Your task to perform on an android device: Open calendar and show me the fourth week of next month Image 0: 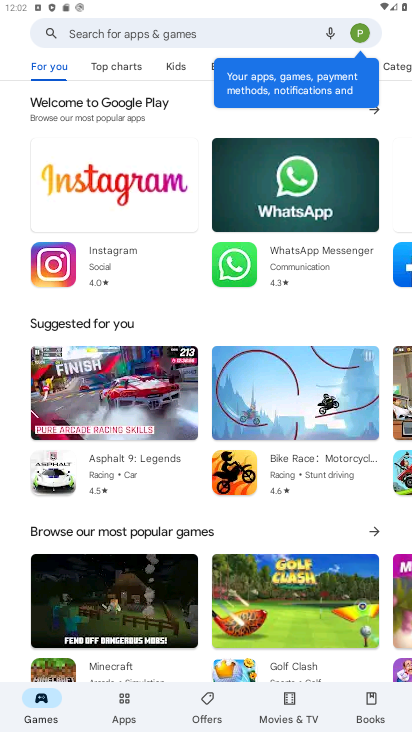
Step 0: press home button
Your task to perform on an android device: Open calendar and show me the fourth week of next month Image 1: 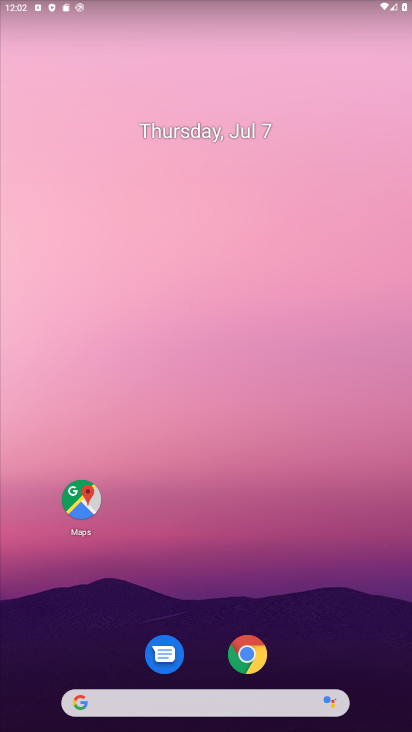
Step 1: click (181, 130)
Your task to perform on an android device: Open calendar and show me the fourth week of next month Image 2: 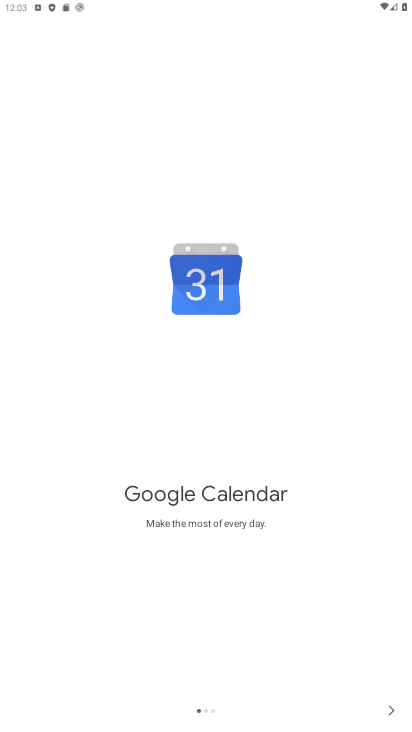
Step 2: click (394, 708)
Your task to perform on an android device: Open calendar and show me the fourth week of next month Image 3: 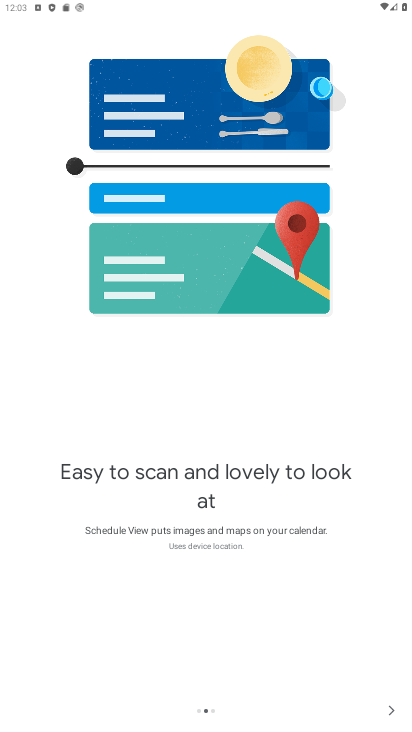
Step 3: click (395, 713)
Your task to perform on an android device: Open calendar and show me the fourth week of next month Image 4: 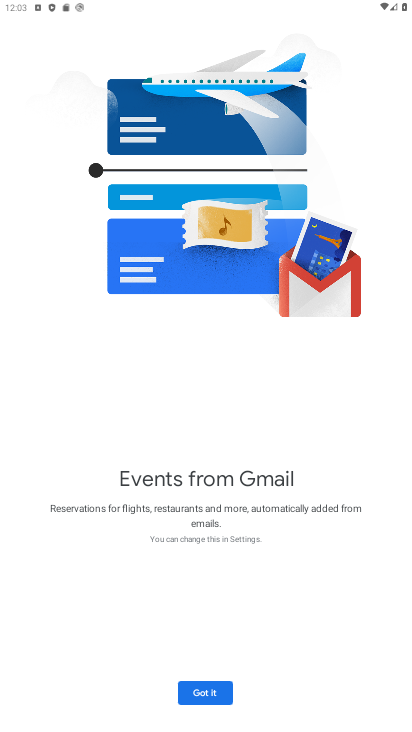
Step 4: click (207, 689)
Your task to perform on an android device: Open calendar and show me the fourth week of next month Image 5: 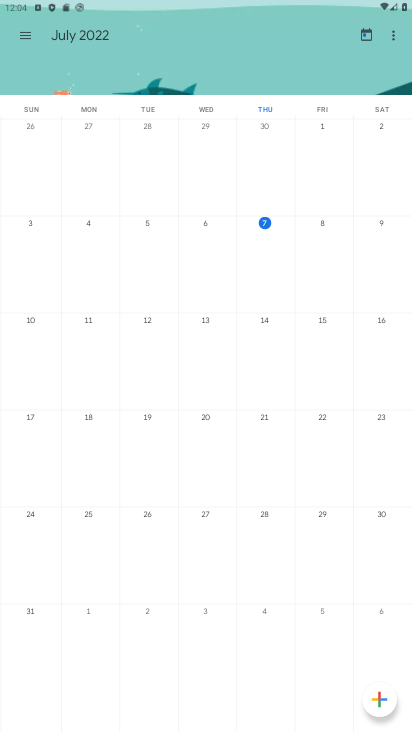
Step 5: click (26, 38)
Your task to perform on an android device: Open calendar and show me the fourth week of next month Image 6: 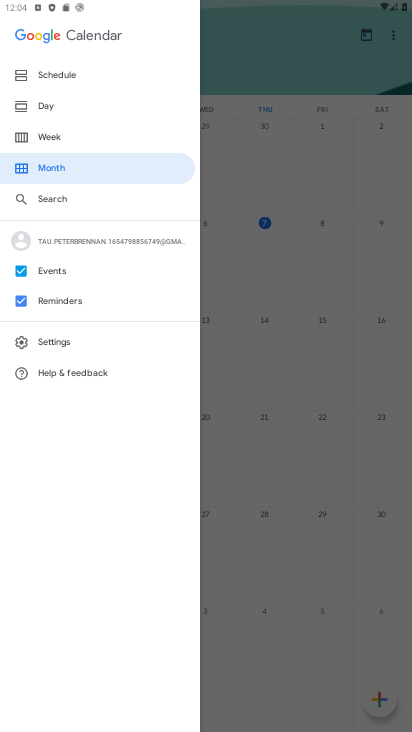
Step 6: click (51, 109)
Your task to perform on an android device: Open calendar and show me the fourth week of next month Image 7: 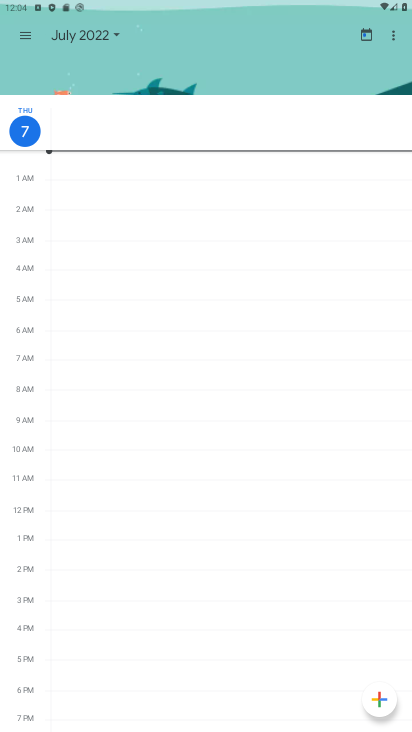
Step 7: click (116, 37)
Your task to perform on an android device: Open calendar and show me the fourth week of next month Image 8: 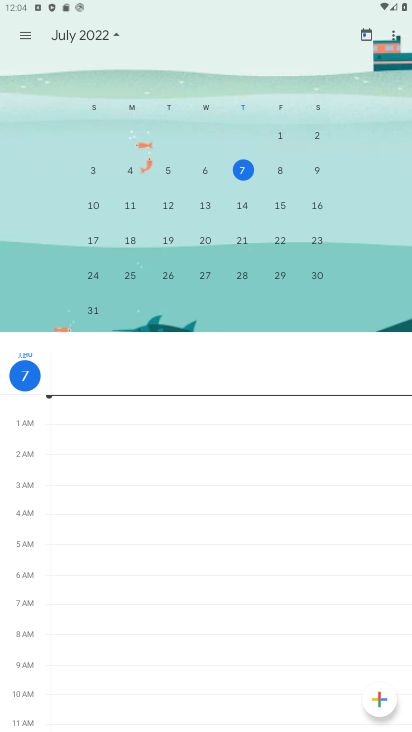
Step 8: drag from (365, 292) to (5, 281)
Your task to perform on an android device: Open calendar and show me the fourth week of next month Image 9: 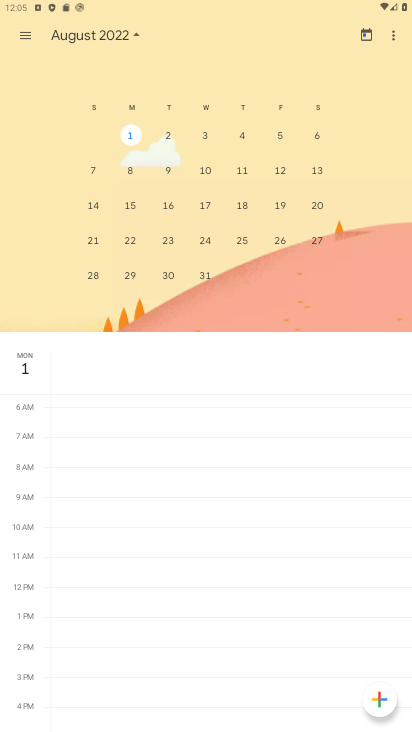
Step 9: click (249, 198)
Your task to perform on an android device: Open calendar and show me the fourth week of next month Image 10: 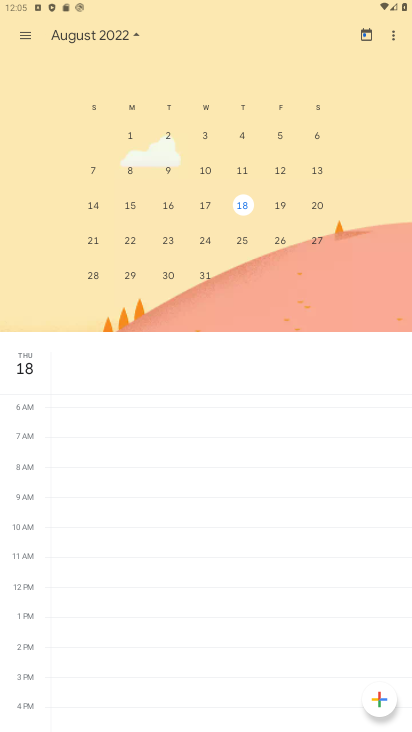
Step 10: task complete